Your task to perform on an android device: Open eBay Image 0: 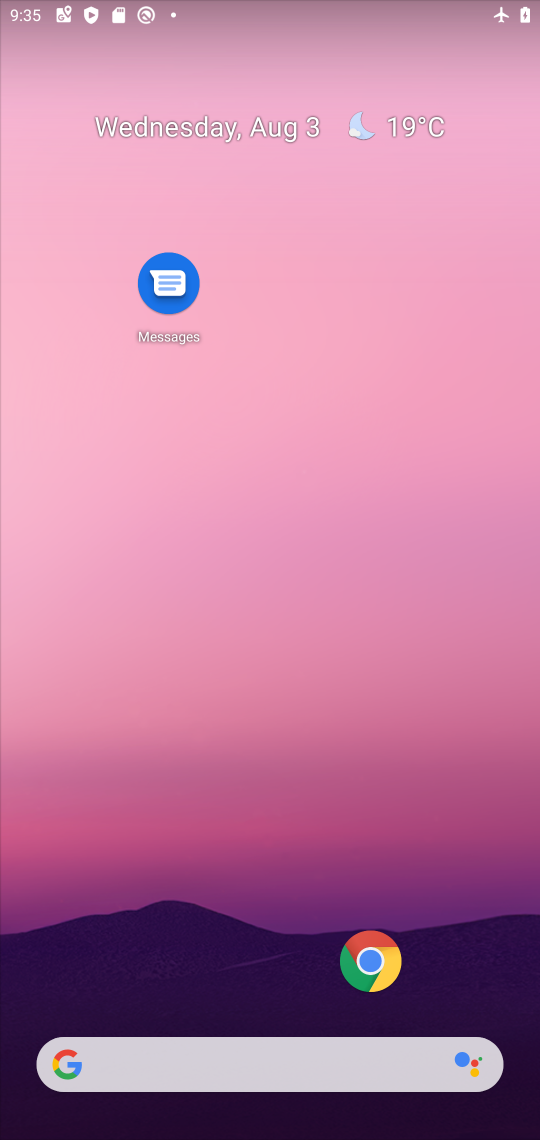
Step 0: click (370, 953)
Your task to perform on an android device: Open eBay Image 1: 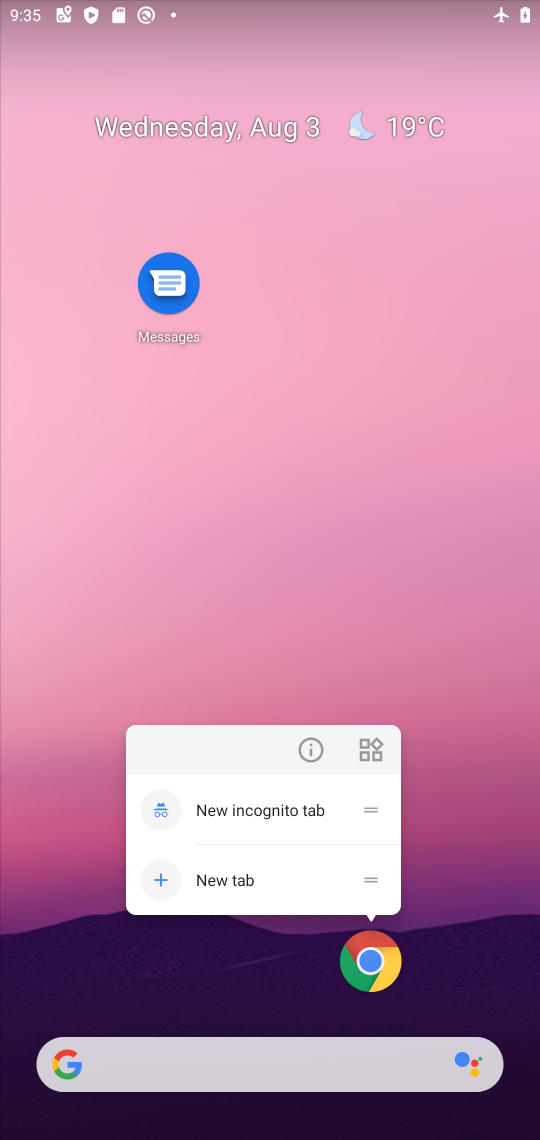
Step 1: click (352, 959)
Your task to perform on an android device: Open eBay Image 2: 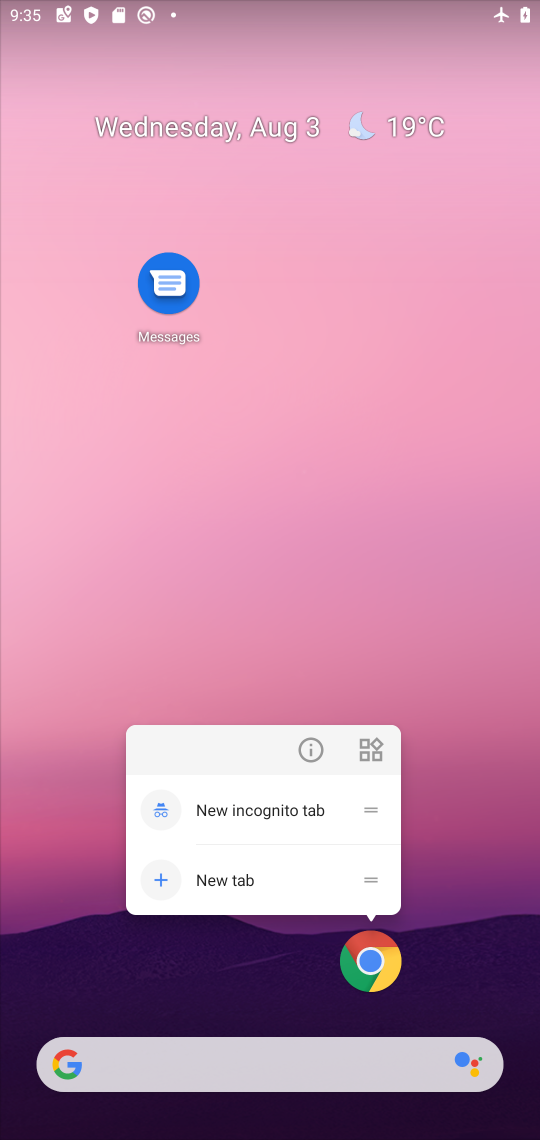
Step 2: click (368, 962)
Your task to perform on an android device: Open eBay Image 3: 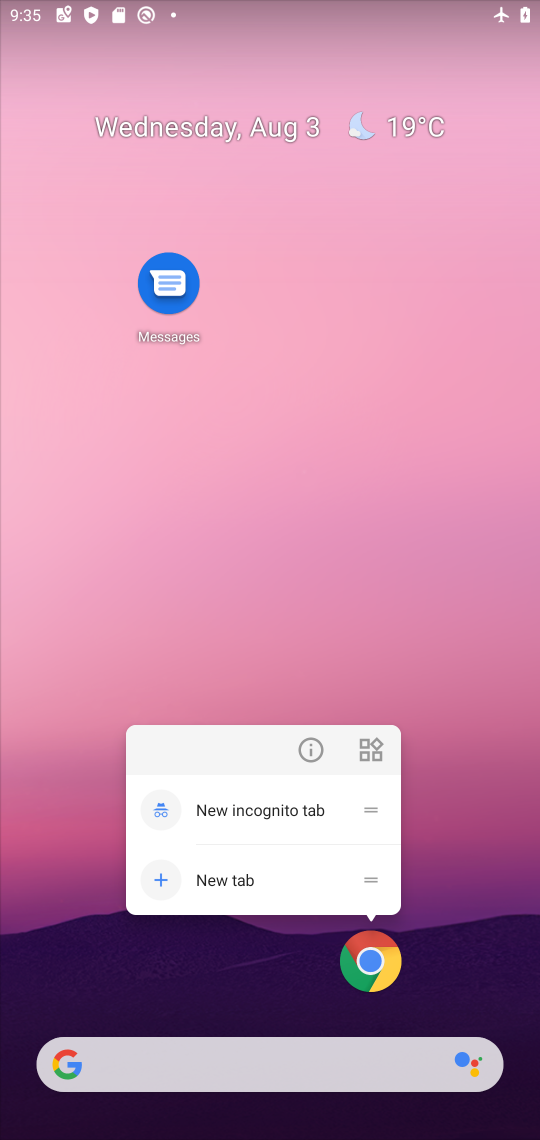
Step 3: click (380, 970)
Your task to perform on an android device: Open eBay Image 4: 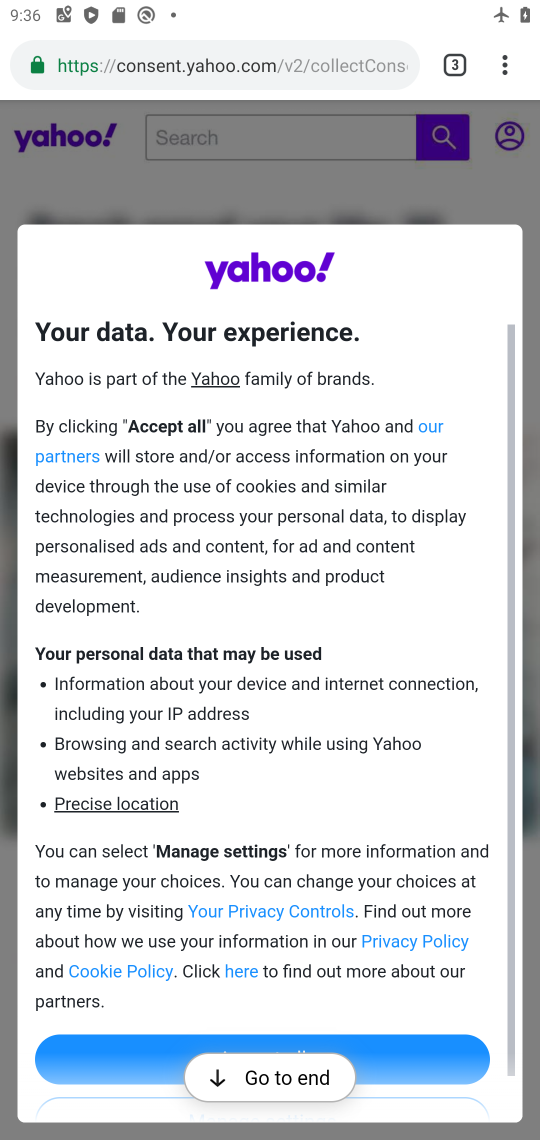
Step 4: click (464, 62)
Your task to perform on an android device: Open eBay Image 5: 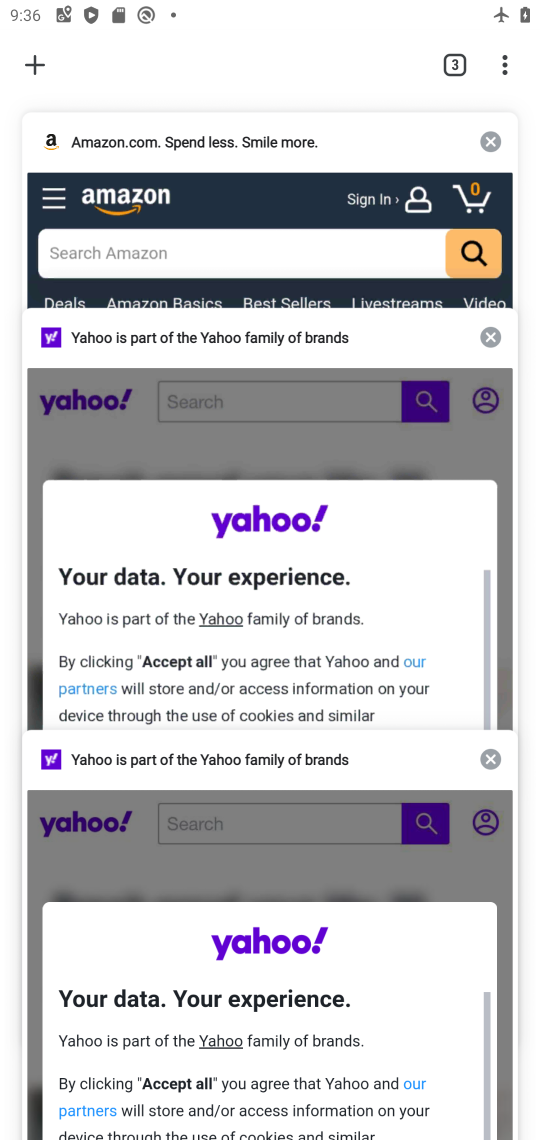
Step 5: click (24, 66)
Your task to perform on an android device: Open eBay Image 6: 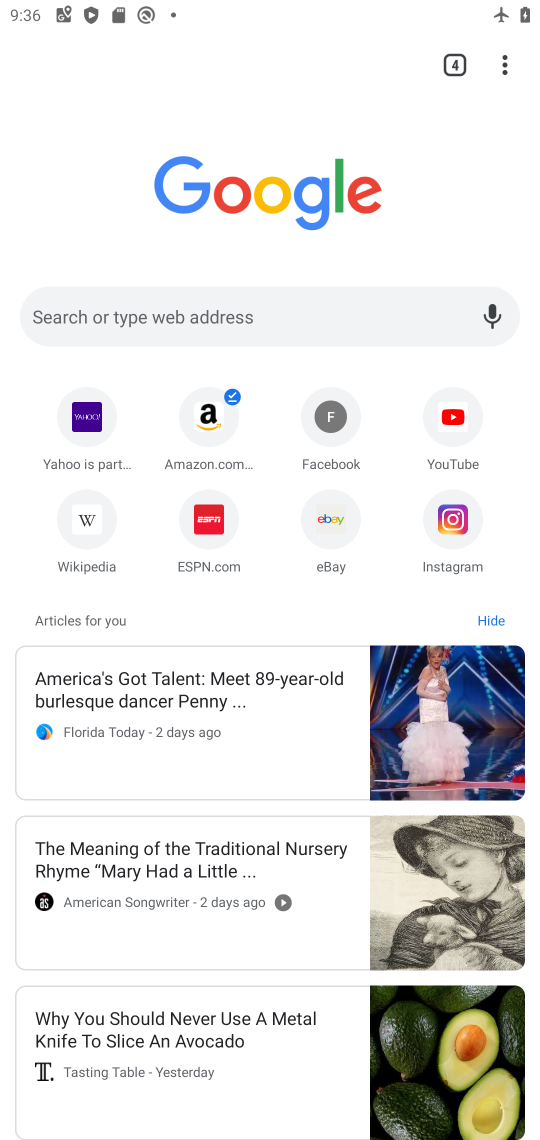
Step 6: click (349, 516)
Your task to perform on an android device: Open eBay Image 7: 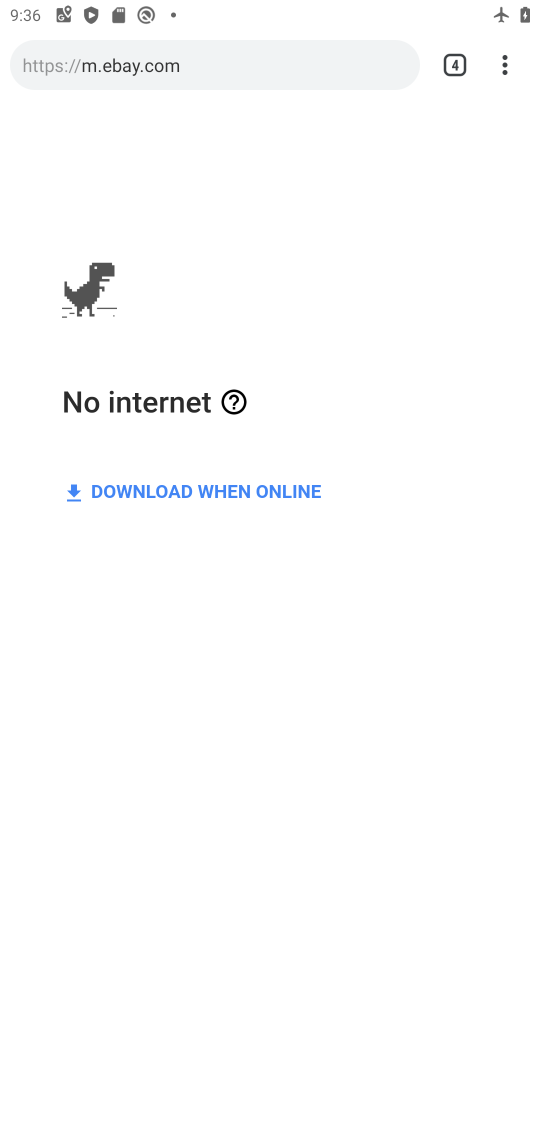
Step 7: task complete